Your task to perform on an android device: turn off smart reply in the gmail app Image 0: 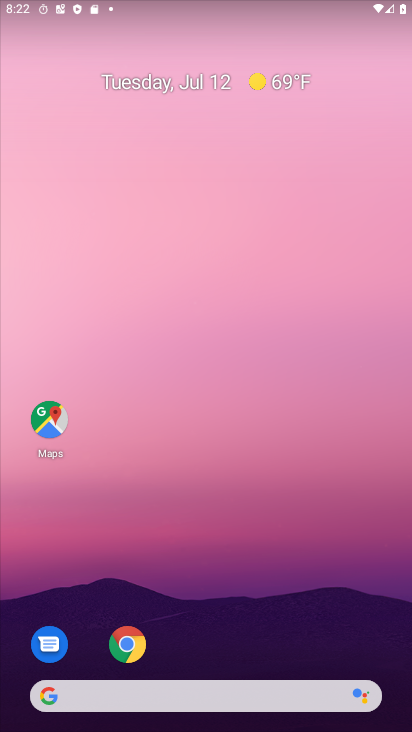
Step 0: drag from (240, 659) to (267, 65)
Your task to perform on an android device: turn off smart reply in the gmail app Image 1: 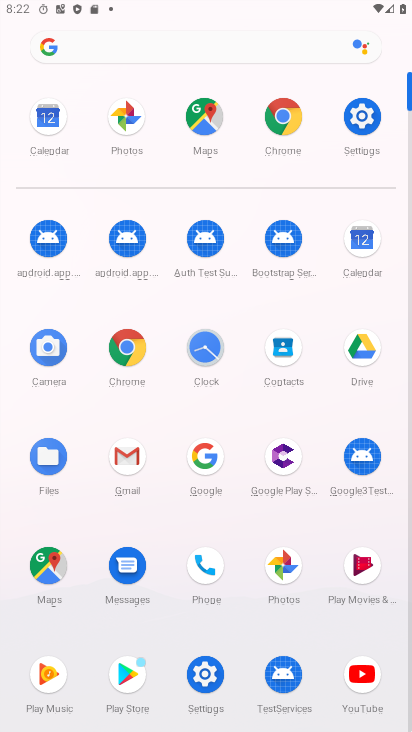
Step 1: click (128, 456)
Your task to perform on an android device: turn off smart reply in the gmail app Image 2: 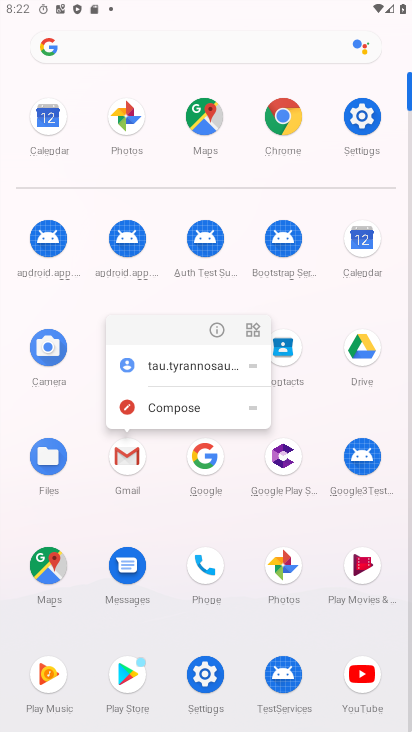
Step 2: click (126, 455)
Your task to perform on an android device: turn off smart reply in the gmail app Image 3: 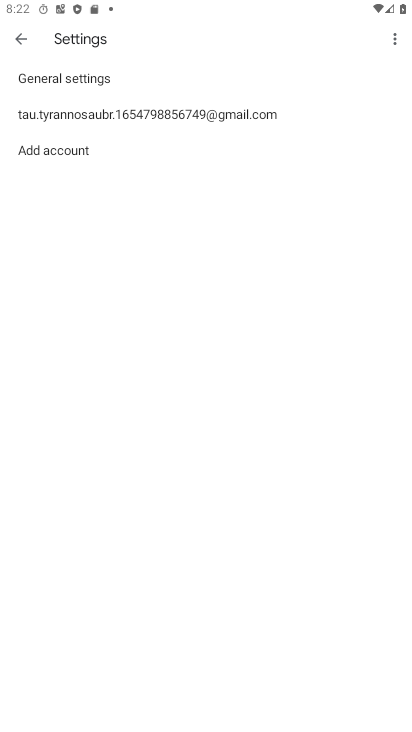
Step 3: click (99, 109)
Your task to perform on an android device: turn off smart reply in the gmail app Image 4: 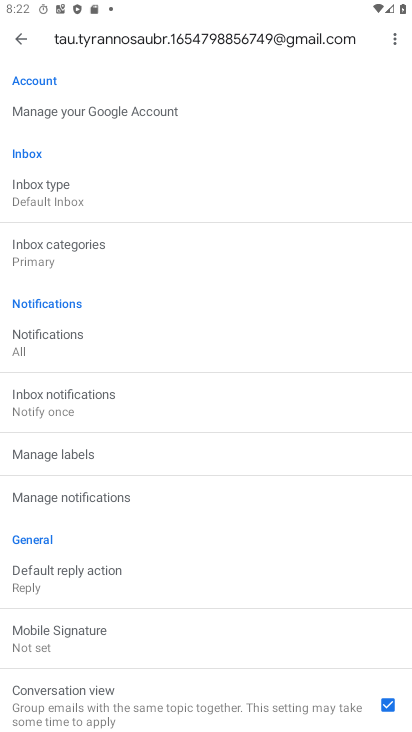
Step 4: drag from (185, 661) to (224, 158)
Your task to perform on an android device: turn off smart reply in the gmail app Image 5: 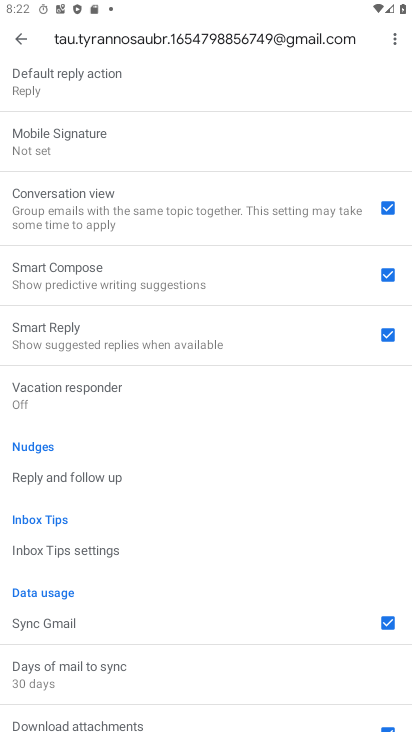
Step 5: click (386, 331)
Your task to perform on an android device: turn off smart reply in the gmail app Image 6: 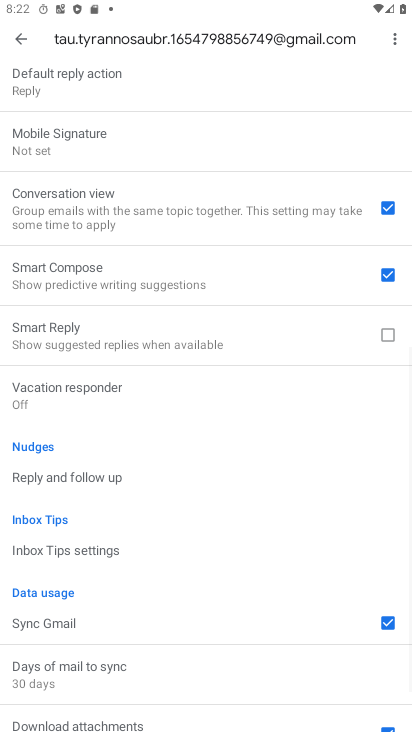
Step 6: task complete